Your task to perform on an android device: Open the stopwatch Image 0: 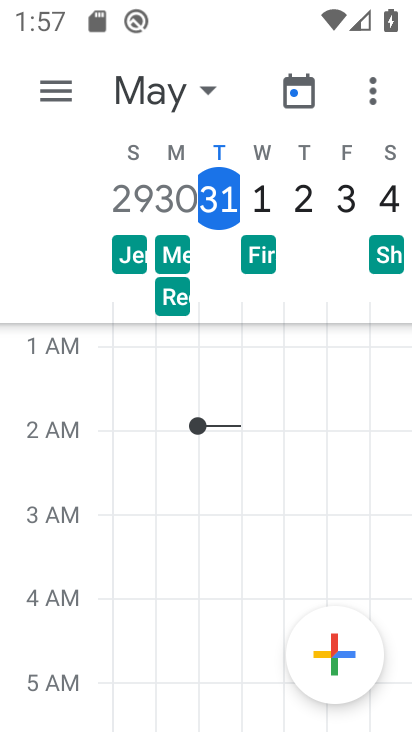
Step 0: press home button
Your task to perform on an android device: Open the stopwatch Image 1: 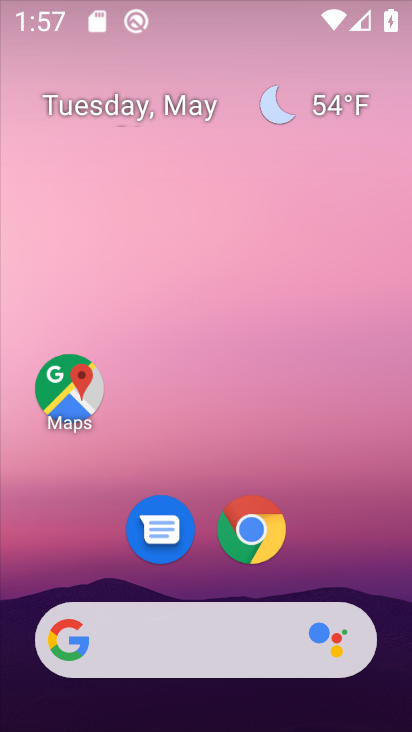
Step 1: drag from (315, 584) to (307, 241)
Your task to perform on an android device: Open the stopwatch Image 2: 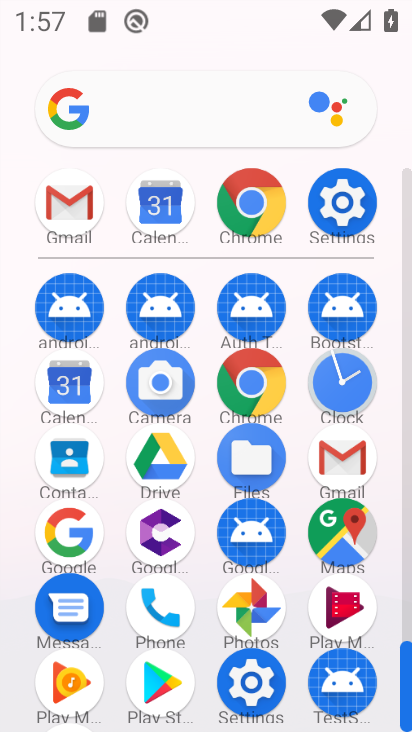
Step 2: click (330, 373)
Your task to perform on an android device: Open the stopwatch Image 3: 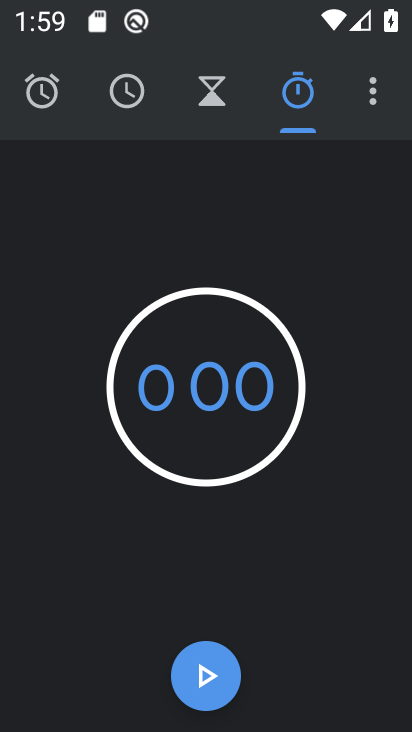
Step 3: task complete